Your task to perform on an android device: Show me productivity apps on the Play Store Image 0: 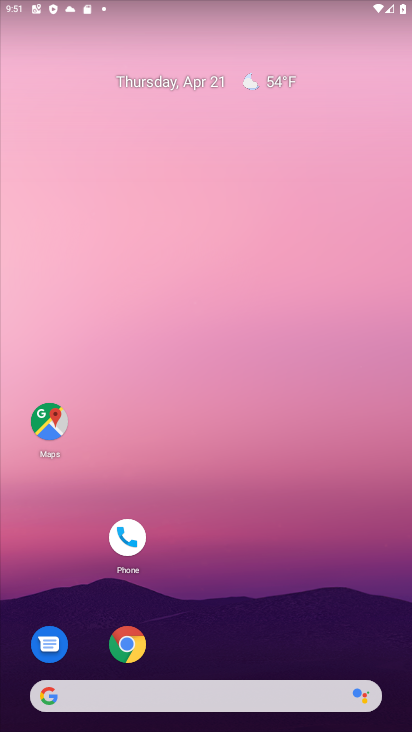
Step 0: drag from (254, 587) to (278, 217)
Your task to perform on an android device: Show me productivity apps on the Play Store Image 1: 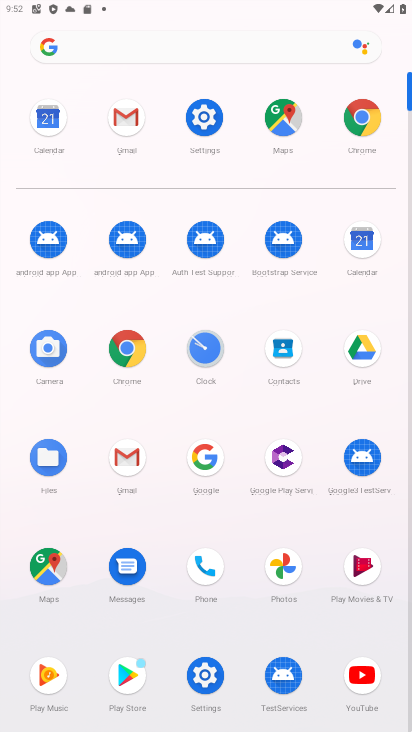
Step 1: click (128, 662)
Your task to perform on an android device: Show me productivity apps on the Play Store Image 2: 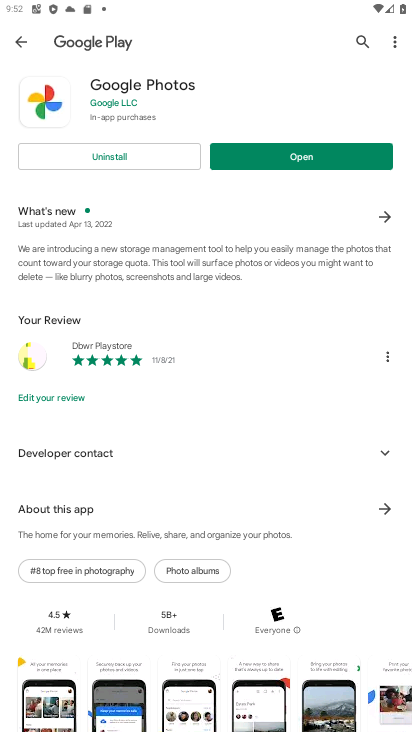
Step 2: click (9, 42)
Your task to perform on an android device: Show me productivity apps on the Play Store Image 3: 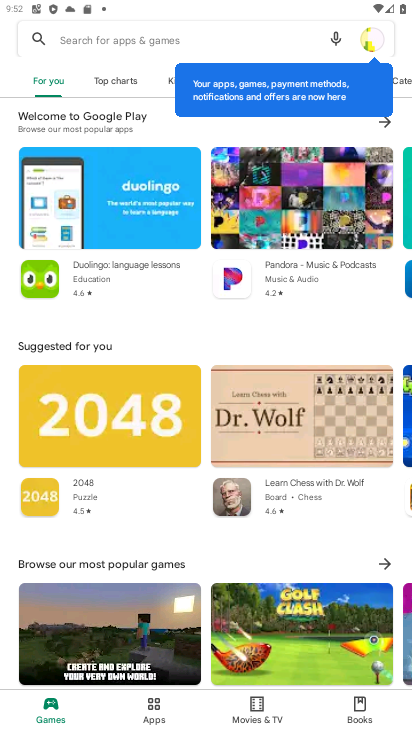
Step 3: task complete